Your task to perform on an android device: turn off airplane mode Image 0: 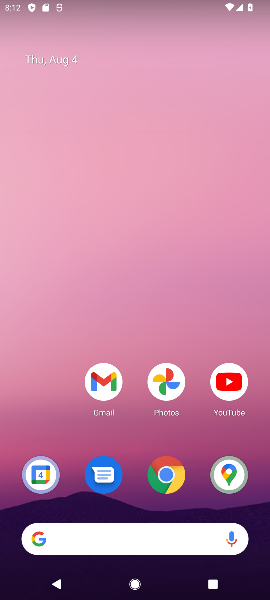
Step 0: drag from (134, 490) to (175, 158)
Your task to perform on an android device: turn off airplane mode Image 1: 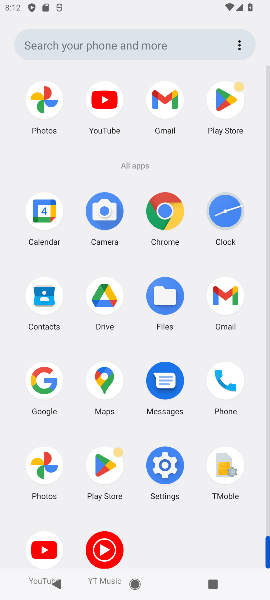
Step 1: click (164, 468)
Your task to perform on an android device: turn off airplane mode Image 2: 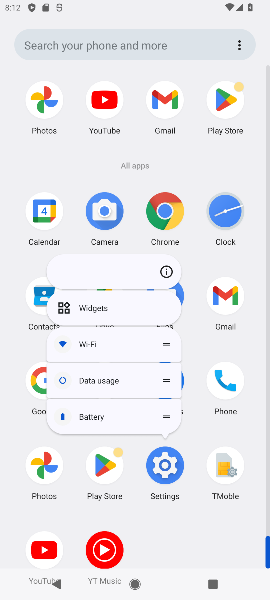
Step 2: click (161, 272)
Your task to perform on an android device: turn off airplane mode Image 3: 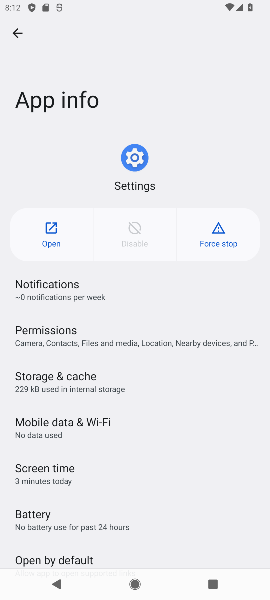
Step 3: click (54, 238)
Your task to perform on an android device: turn off airplane mode Image 4: 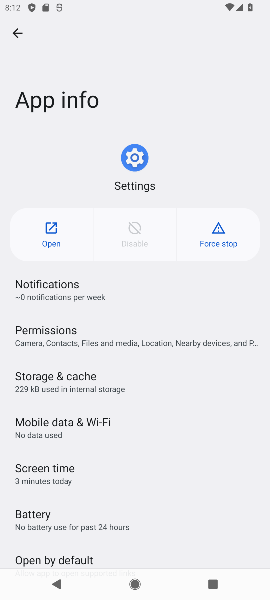
Step 4: click (54, 238)
Your task to perform on an android device: turn off airplane mode Image 5: 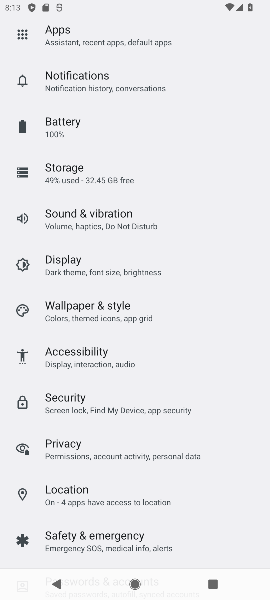
Step 5: drag from (125, 110) to (179, 536)
Your task to perform on an android device: turn off airplane mode Image 6: 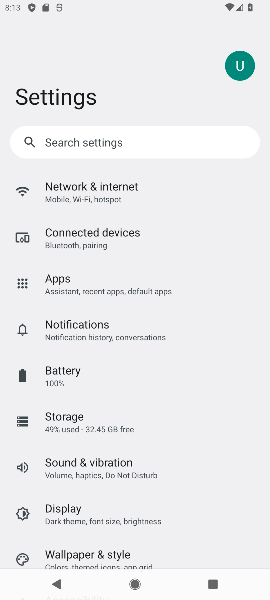
Step 6: click (80, 198)
Your task to perform on an android device: turn off airplane mode Image 7: 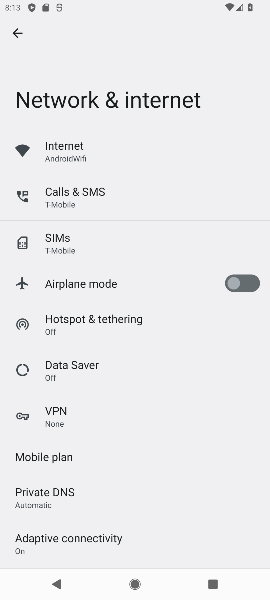
Step 7: task complete